Your task to perform on an android device: toggle translation in the chrome app Image 0: 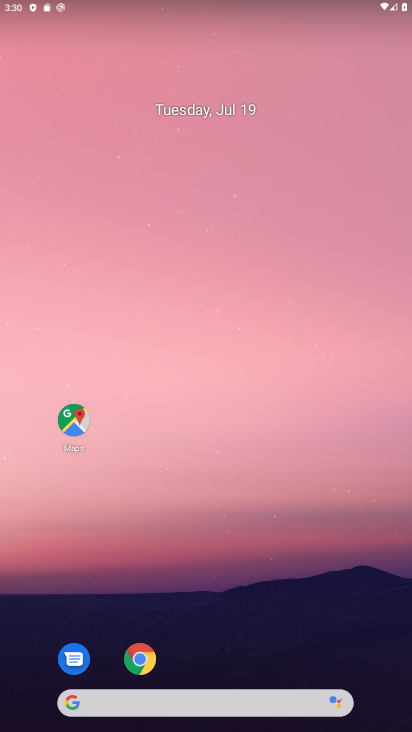
Step 0: drag from (248, 626) to (224, 0)
Your task to perform on an android device: toggle translation in the chrome app Image 1: 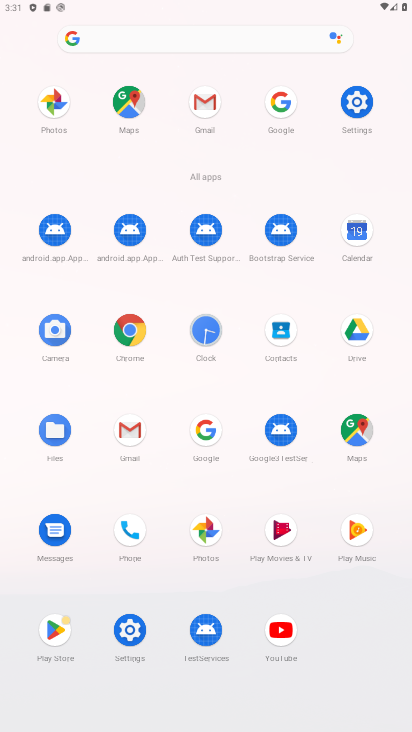
Step 1: click (142, 325)
Your task to perform on an android device: toggle translation in the chrome app Image 2: 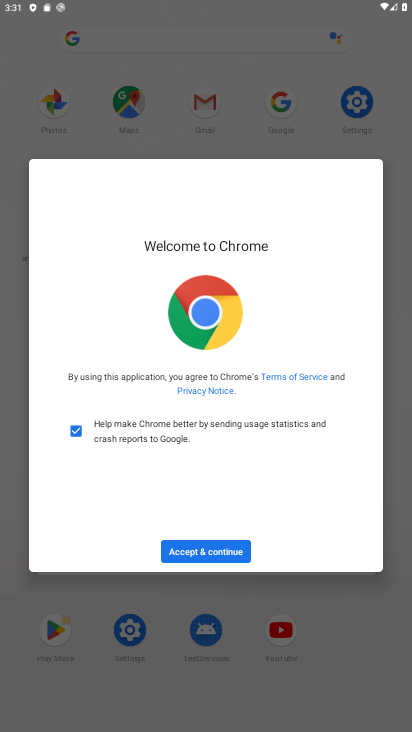
Step 2: click (204, 575)
Your task to perform on an android device: toggle translation in the chrome app Image 3: 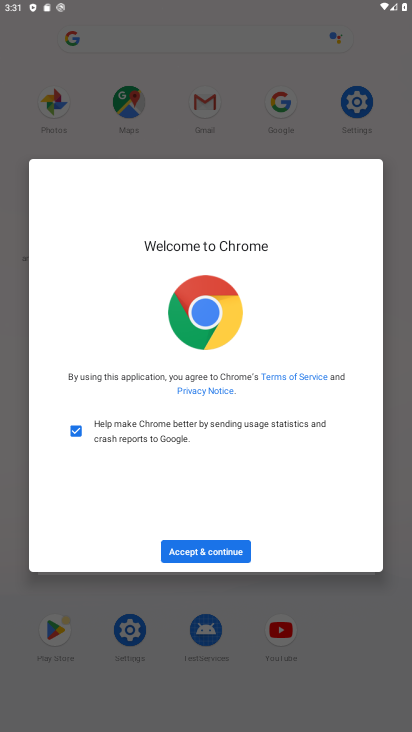
Step 3: click (204, 550)
Your task to perform on an android device: toggle translation in the chrome app Image 4: 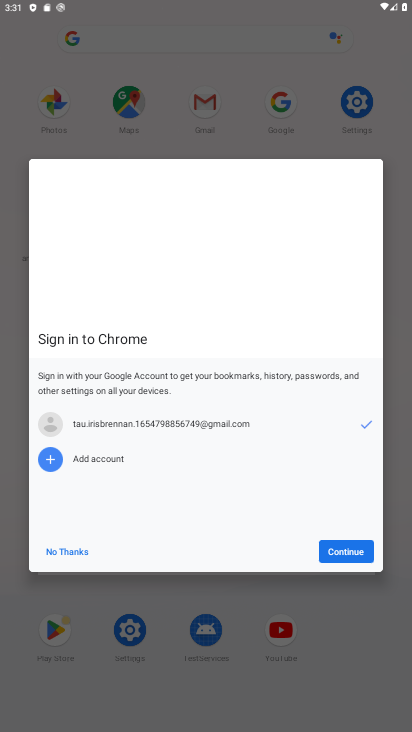
Step 4: click (76, 548)
Your task to perform on an android device: toggle translation in the chrome app Image 5: 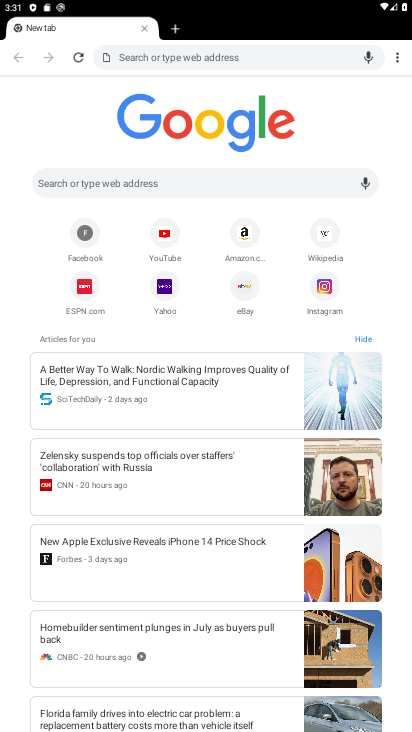
Step 5: drag from (391, 55) to (262, 274)
Your task to perform on an android device: toggle translation in the chrome app Image 6: 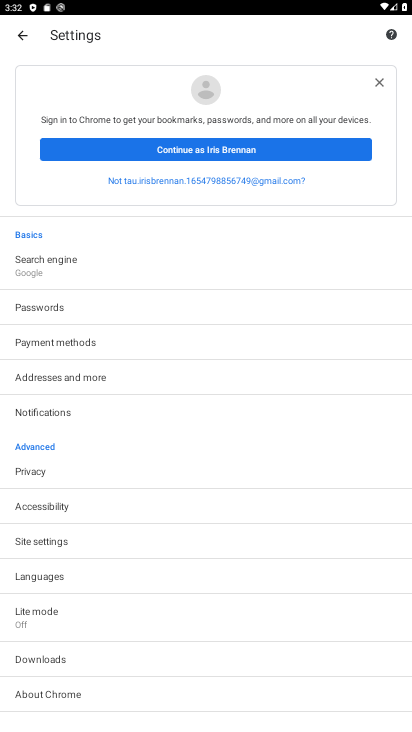
Step 6: drag from (103, 638) to (140, 299)
Your task to perform on an android device: toggle translation in the chrome app Image 7: 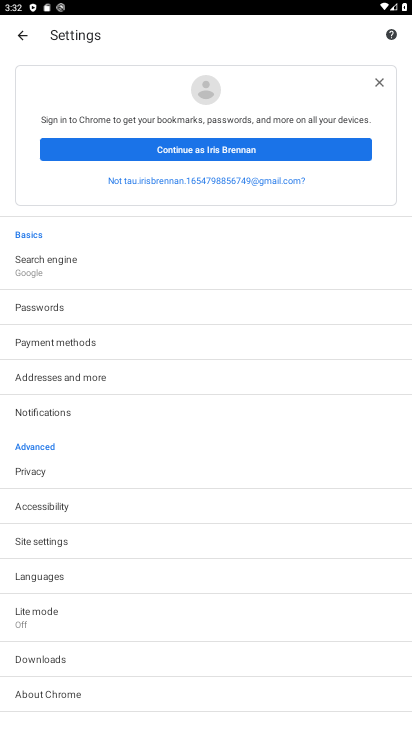
Step 7: click (55, 579)
Your task to perform on an android device: toggle translation in the chrome app Image 8: 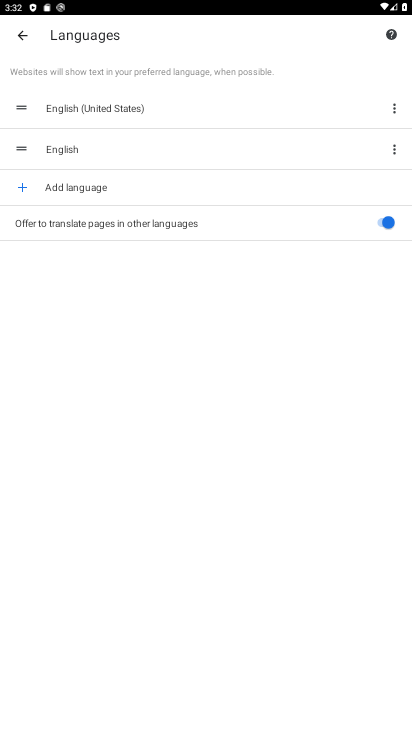
Step 8: click (395, 220)
Your task to perform on an android device: toggle translation in the chrome app Image 9: 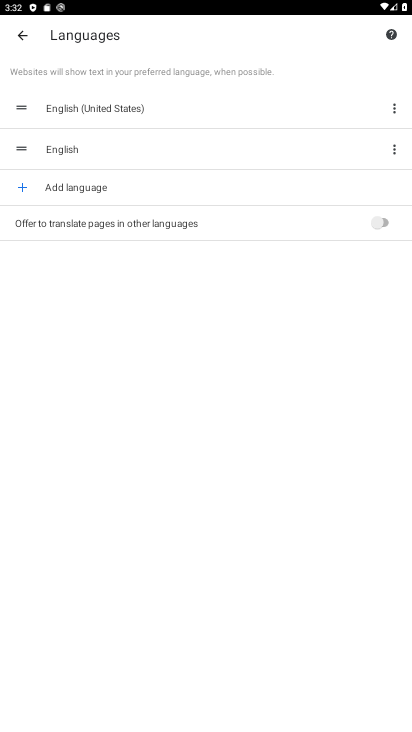
Step 9: task complete